Your task to perform on an android device: check the backup settings in the google photos Image 0: 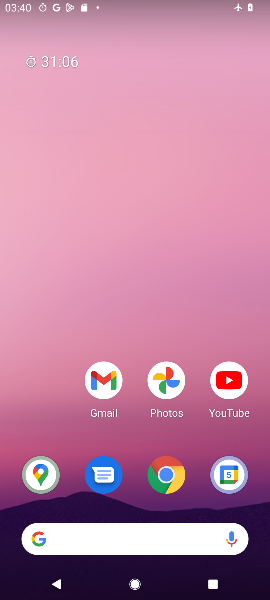
Step 0: press home button
Your task to perform on an android device: check the backup settings in the google photos Image 1: 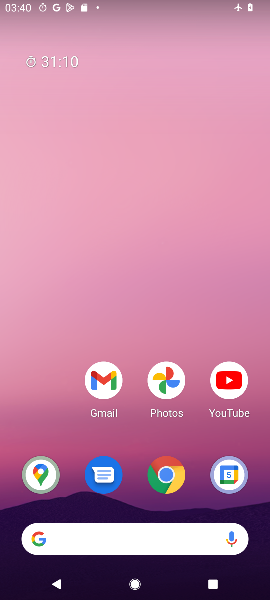
Step 1: drag from (62, 425) to (28, 179)
Your task to perform on an android device: check the backup settings in the google photos Image 2: 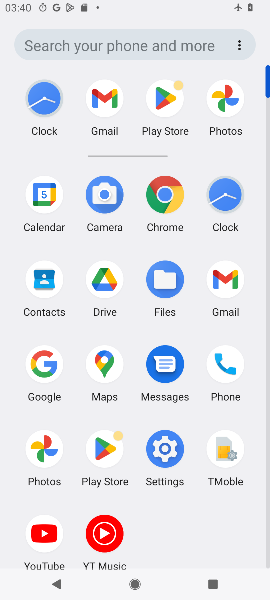
Step 2: click (167, 458)
Your task to perform on an android device: check the backup settings in the google photos Image 3: 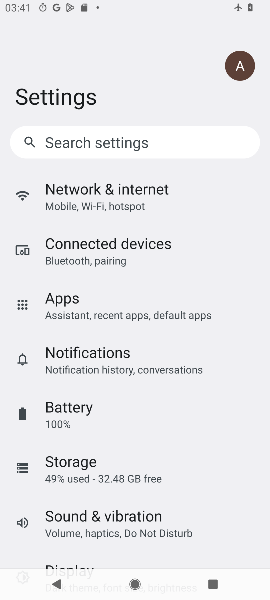
Step 3: press back button
Your task to perform on an android device: check the backup settings in the google photos Image 4: 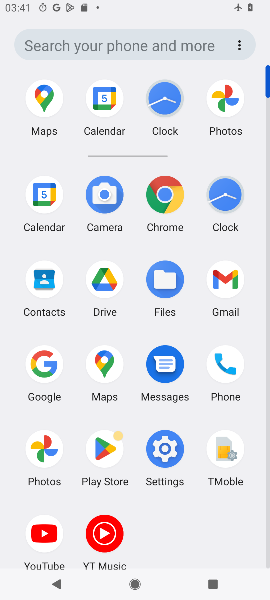
Step 4: click (39, 458)
Your task to perform on an android device: check the backup settings in the google photos Image 5: 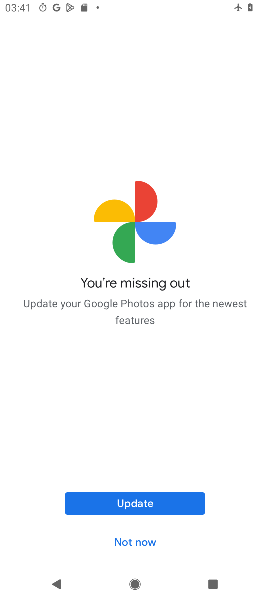
Step 5: click (130, 544)
Your task to perform on an android device: check the backup settings in the google photos Image 6: 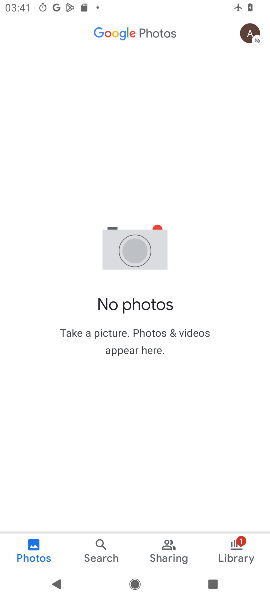
Step 6: click (247, 30)
Your task to perform on an android device: check the backup settings in the google photos Image 7: 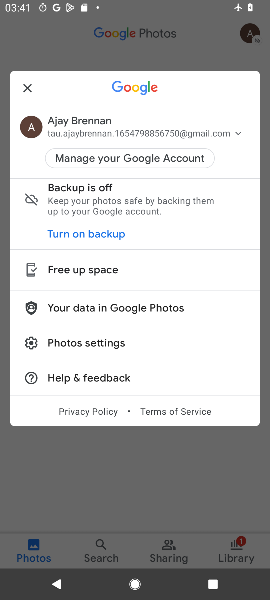
Step 7: click (129, 348)
Your task to perform on an android device: check the backup settings in the google photos Image 8: 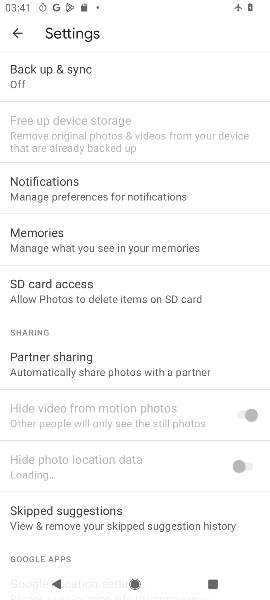
Step 8: click (62, 83)
Your task to perform on an android device: check the backup settings in the google photos Image 9: 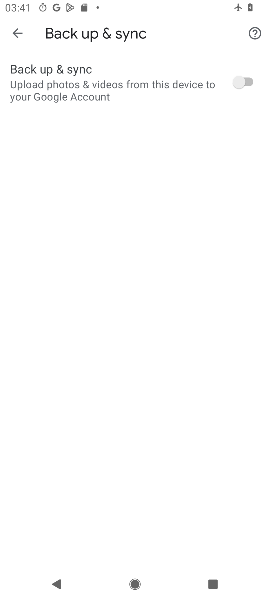
Step 9: click (108, 70)
Your task to perform on an android device: check the backup settings in the google photos Image 10: 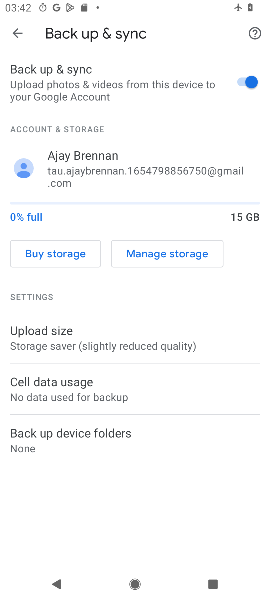
Step 10: task complete